Your task to perform on an android device: turn off airplane mode Image 0: 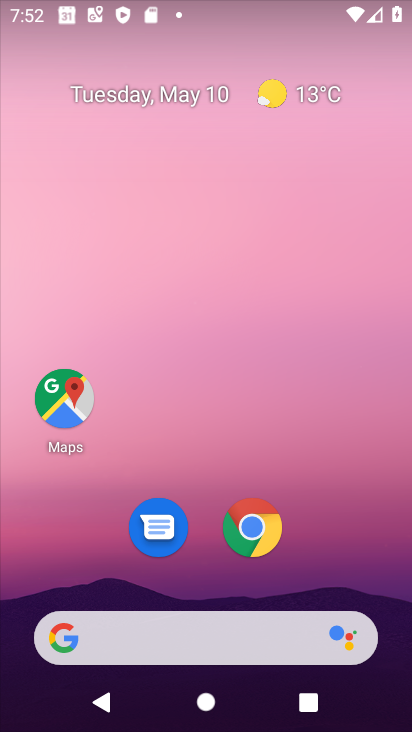
Step 0: drag from (238, 5) to (220, 483)
Your task to perform on an android device: turn off airplane mode Image 1: 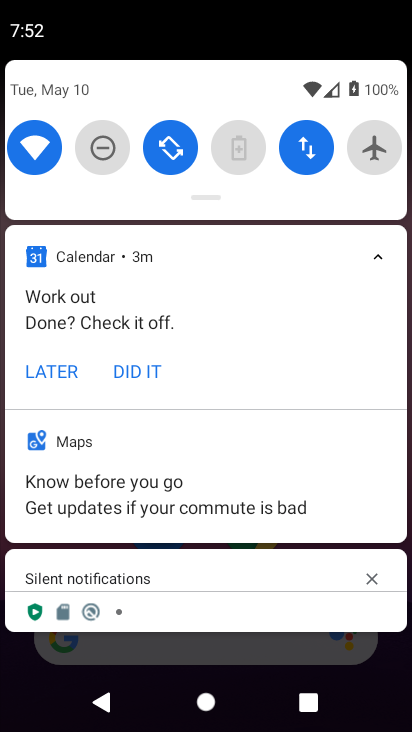
Step 1: click (378, 154)
Your task to perform on an android device: turn off airplane mode Image 2: 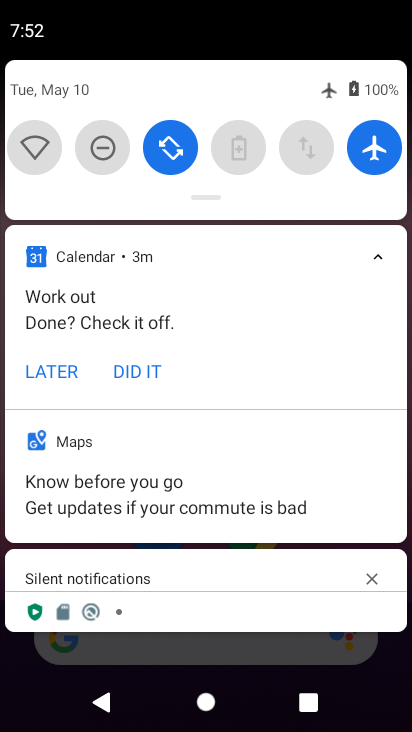
Step 2: task complete